Your task to perform on an android device: What's the weather going to be tomorrow? Image 0: 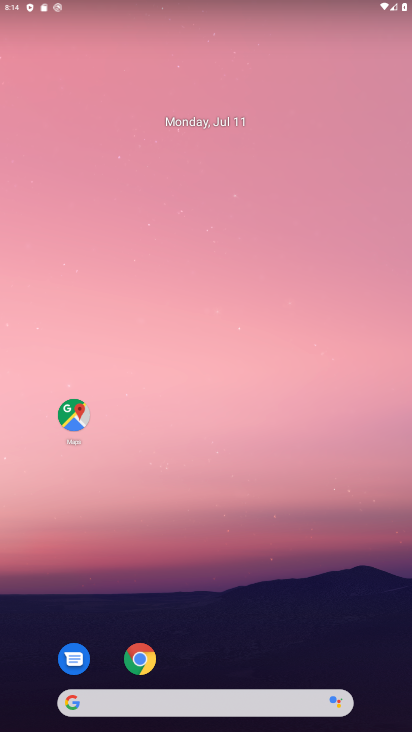
Step 0: click (158, 707)
Your task to perform on an android device: What's the weather going to be tomorrow? Image 1: 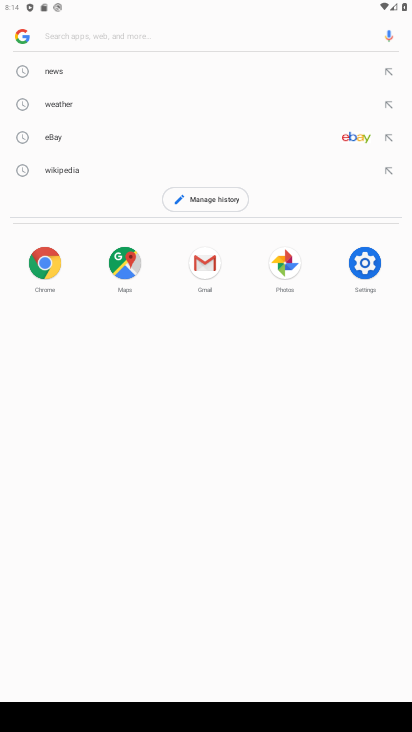
Step 1: type "What's the weather going to be tomorrow?"
Your task to perform on an android device: What's the weather going to be tomorrow? Image 2: 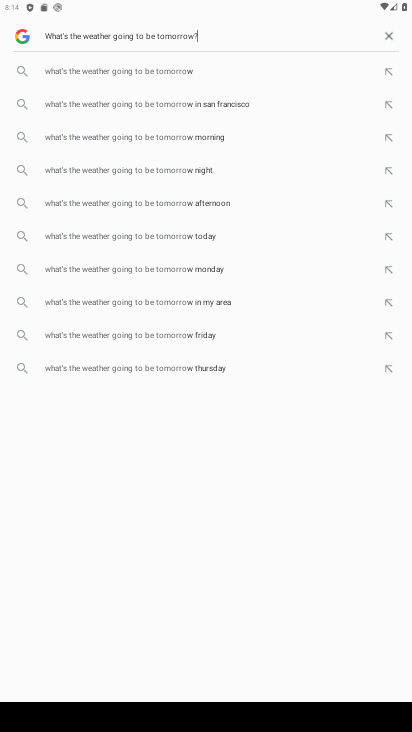
Step 2: type ""
Your task to perform on an android device: What's the weather going to be tomorrow? Image 3: 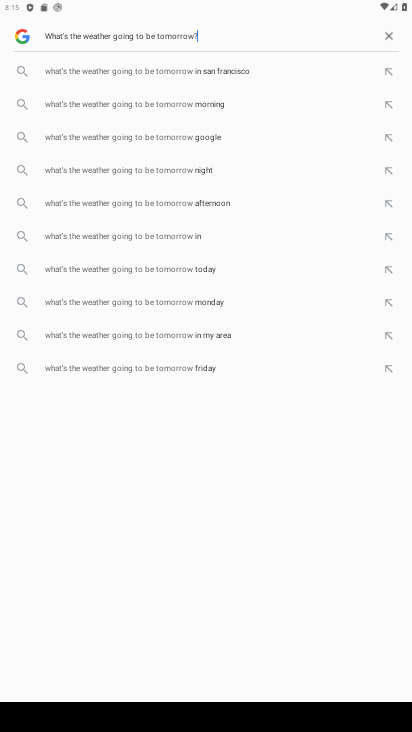
Step 3: type ""
Your task to perform on an android device: What's the weather going to be tomorrow? Image 4: 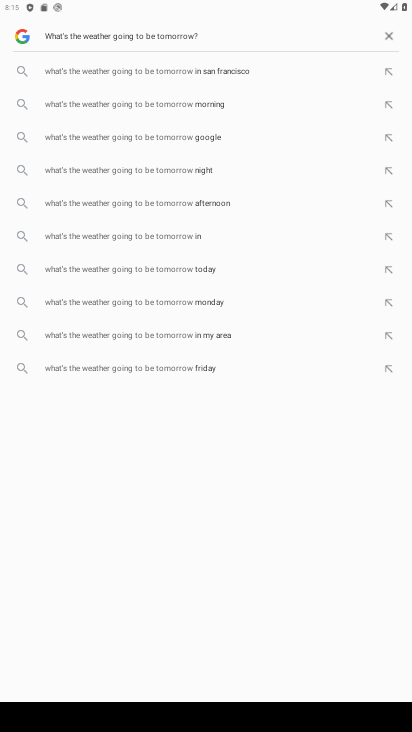
Step 4: type ""
Your task to perform on an android device: What's the weather going to be tomorrow? Image 5: 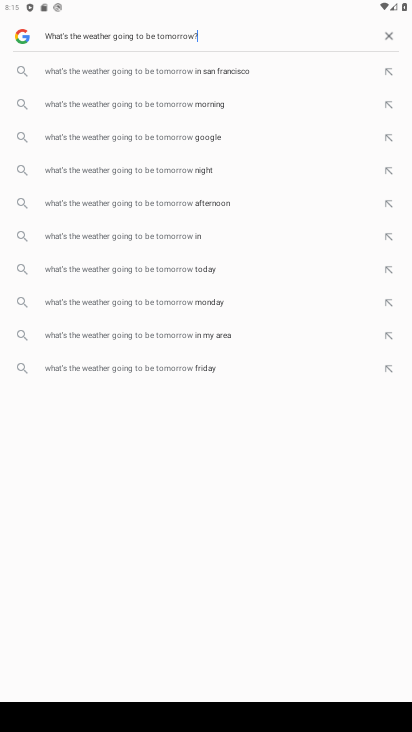
Step 5: type ""
Your task to perform on an android device: What's the weather going to be tomorrow? Image 6: 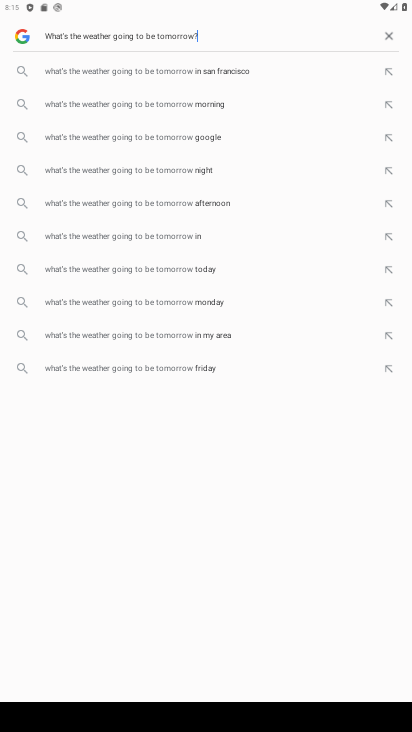
Step 6: type ""
Your task to perform on an android device: What's the weather going to be tomorrow? Image 7: 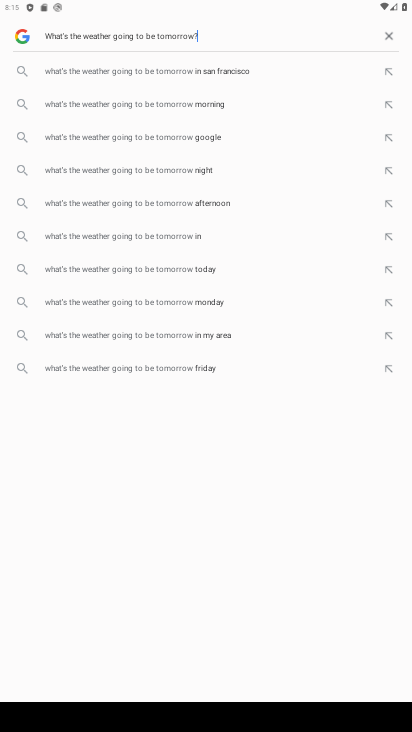
Step 7: task complete